Your task to perform on an android device: Open Wikipedia Image 0: 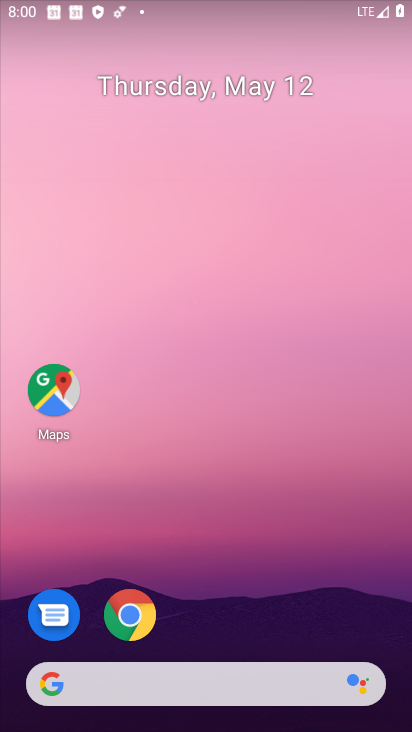
Step 0: drag from (226, 586) to (172, 14)
Your task to perform on an android device: Open Wikipedia Image 1: 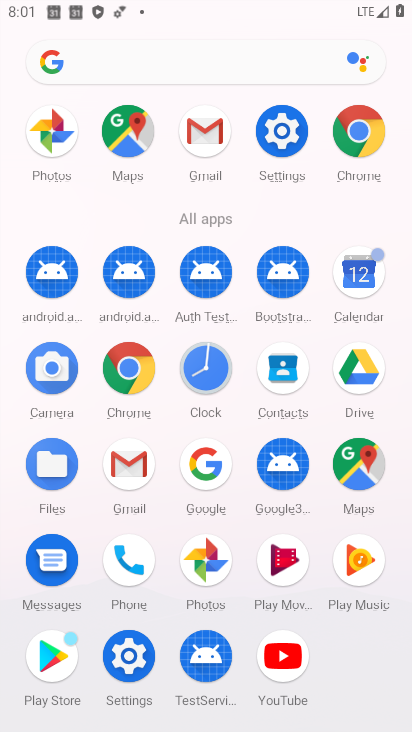
Step 1: click (127, 366)
Your task to perform on an android device: Open Wikipedia Image 2: 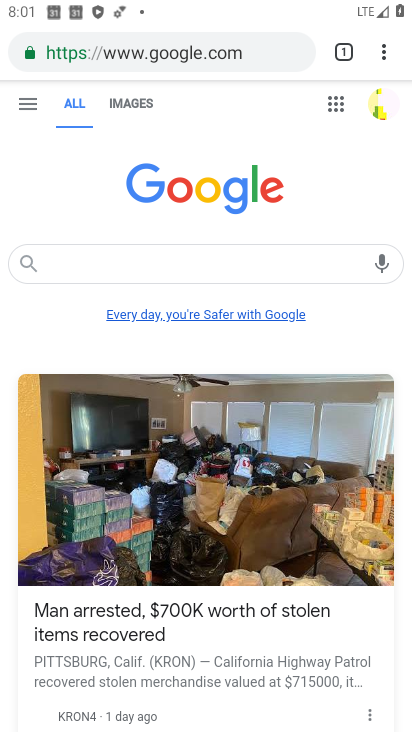
Step 2: click (118, 30)
Your task to perform on an android device: Open Wikipedia Image 3: 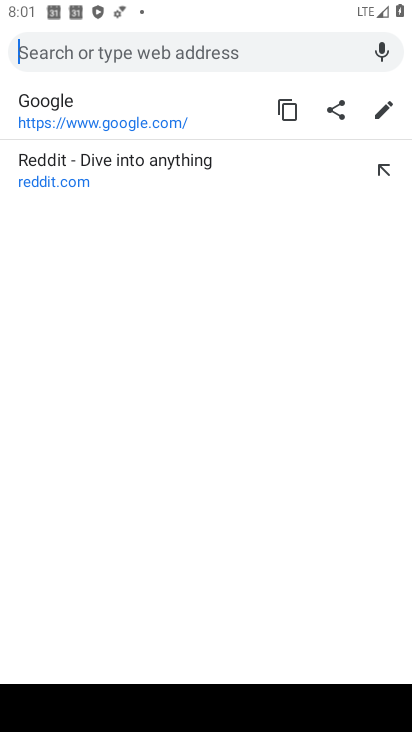
Step 3: type "Wikipedia"
Your task to perform on an android device: Open Wikipedia Image 4: 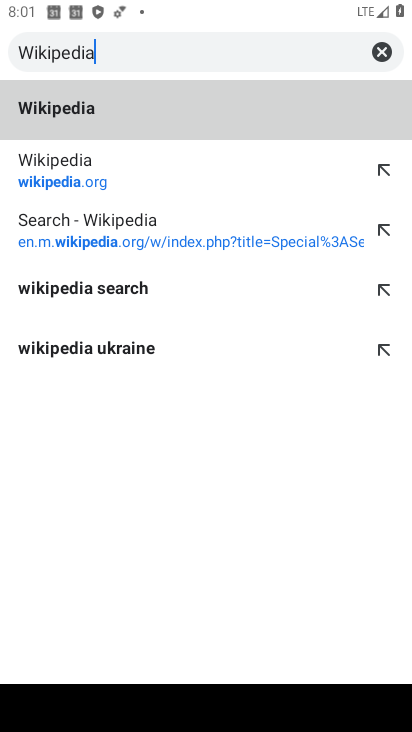
Step 4: type ""
Your task to perform on an android device: Open Wikipedia Image 5: 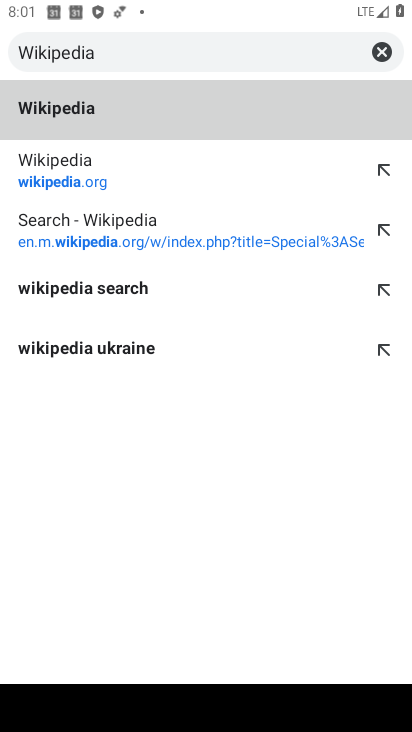
Step 5: click (98, 171)
Your task to perform on an android device: Open Wikipedia Image 6: 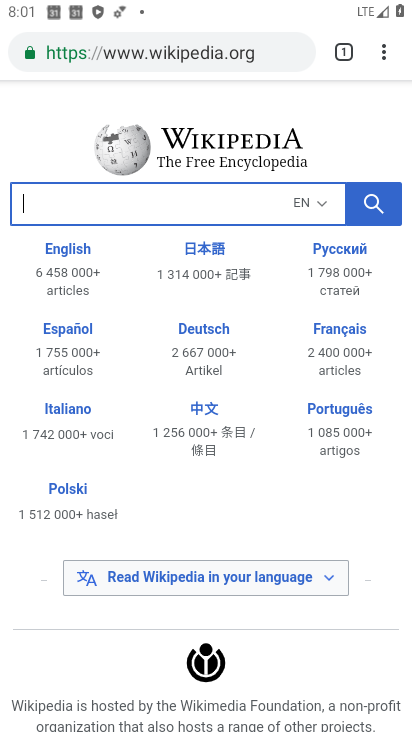
Step 6: task complete